Your task to perform on an android device: create a new album in the google photos Image 0: 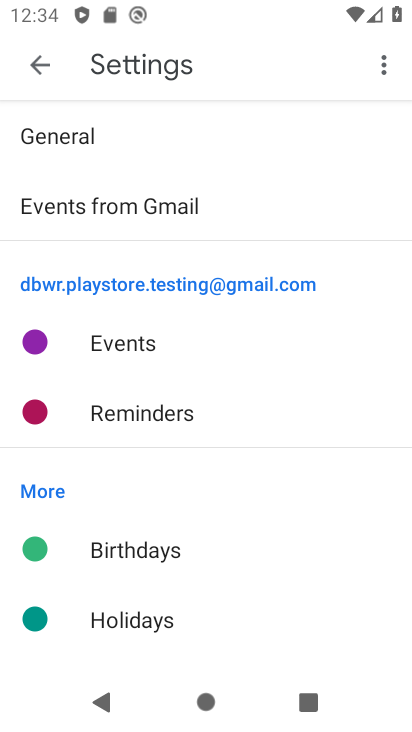
Step 0: press home button
Your task to perform on an android device: create a new album in the google photos Image 1: 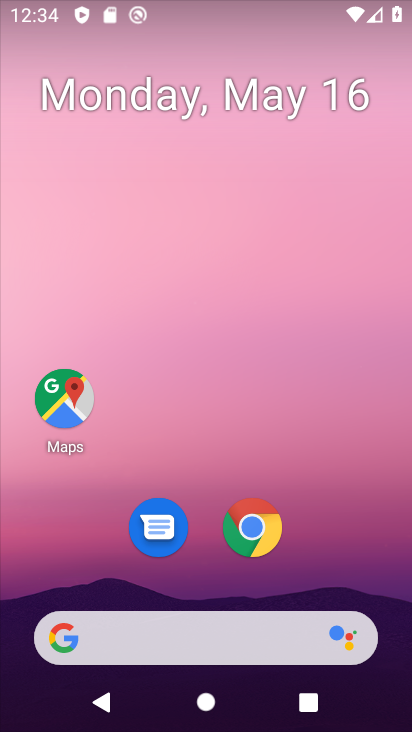
Step 1: drag from (188, 547) to (262, 122)
Your task to perform on an android device: create a new album in the google photos Image 2: 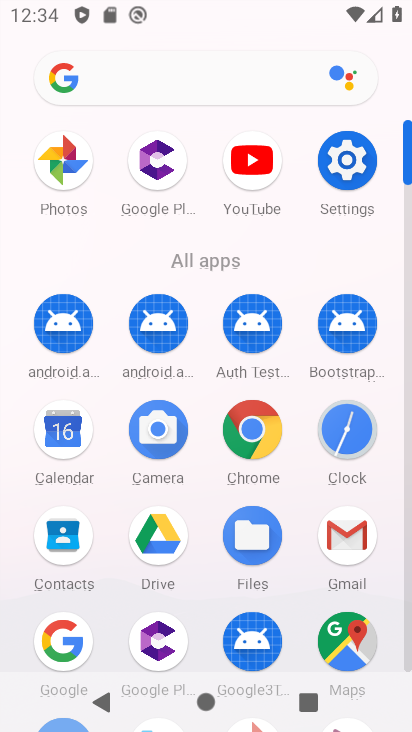
Step 2: click (64, 164)
Your task to perform on an android device: create a new album in the google photos Image 3: 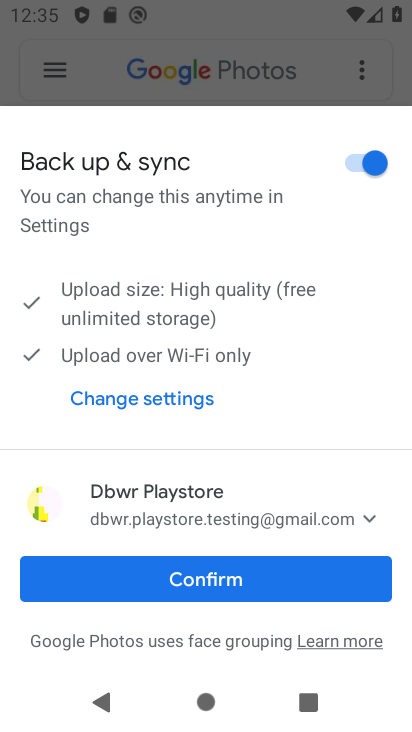
Step 3: click (151, 645)
Your task to perform on an android device: create a new album in the google photos Image 4: 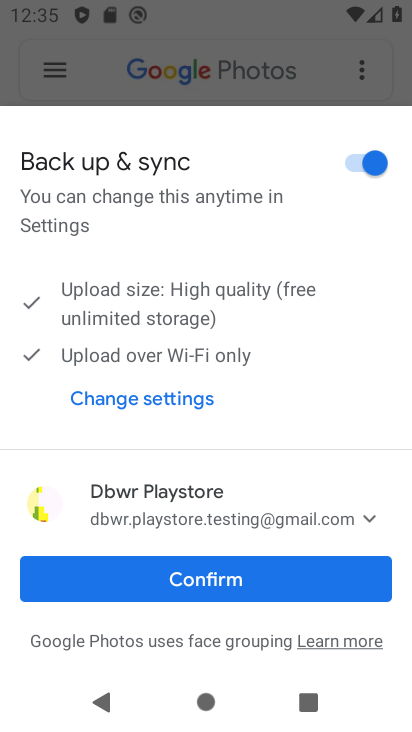
Step 4: click (211, 573)
Your task to perform on an android device: create a new album in the google photos Image 5: 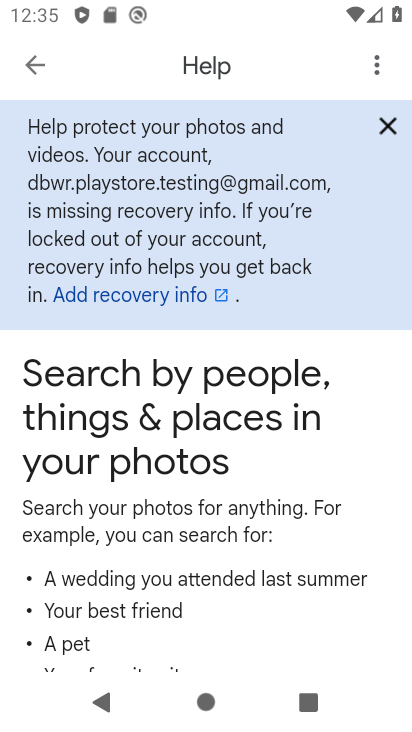
Step 5: click (379, 130)
Your task to perform on an android device: create a new album in the google photos Image 6: 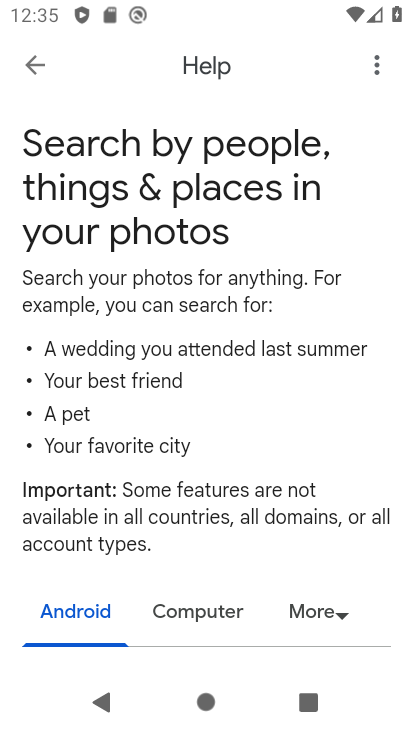
Step 6: click (41, 68)
Your task to perform on an android device: create a new album in the google photos Image 7: 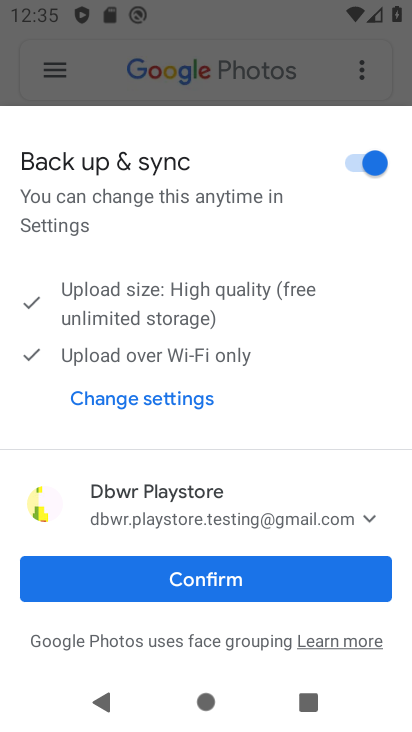
Step 7: click (219, 582)
Your task to perform on an android device: create a new album in the google photos Image 8: 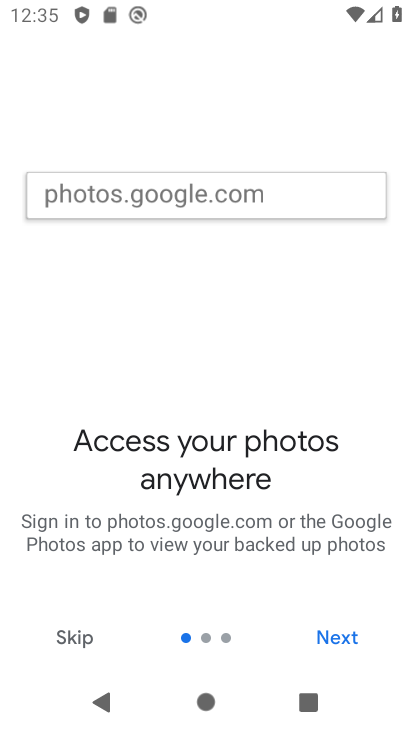
Step 8: click (341, 641)
Your task to perform on an android device: create a new album in the google photos Image 9: 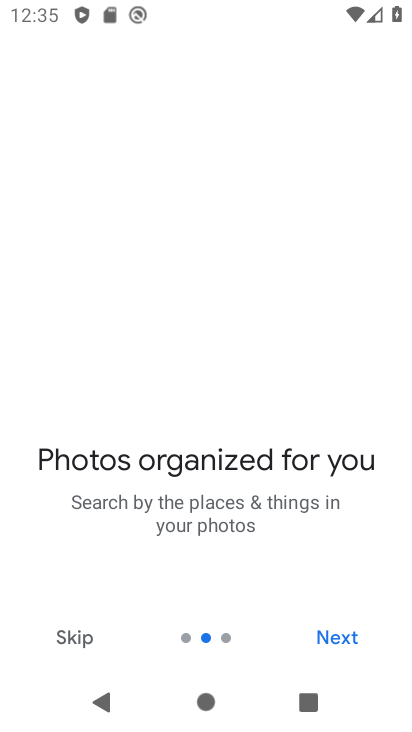
Step 9: click (343, 630)
Your task to perform on an android device: create a new album in the google photos Image 10: 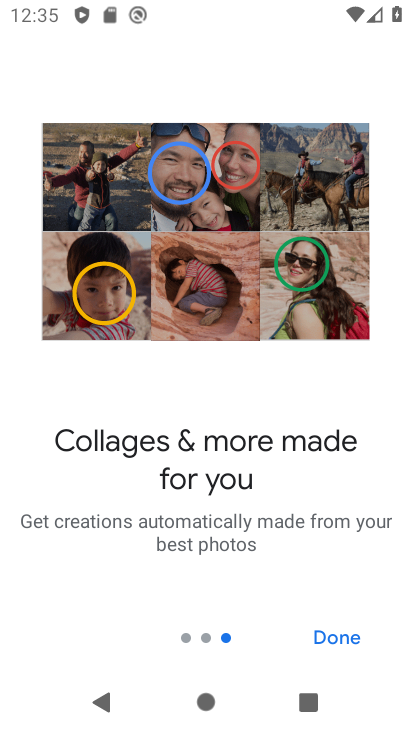
Step 10: click (343, 634)
Your task to perform on an android device: create a new album in the google photos Image 11: 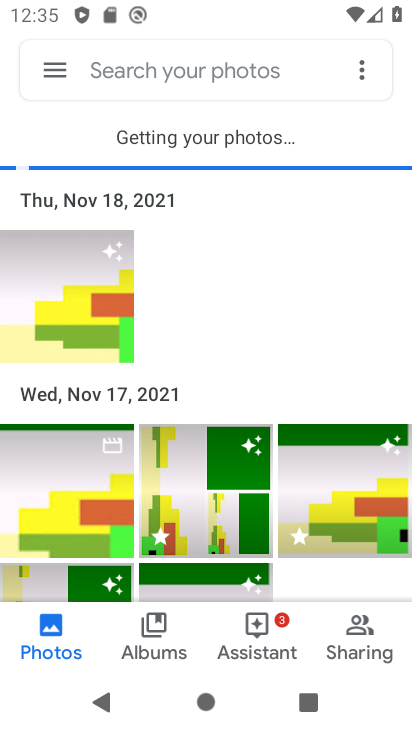
Step 11: task complete